Your task to perform on an android device: open app "WhatsApp Messenger" (install if not already installed) Image 0: 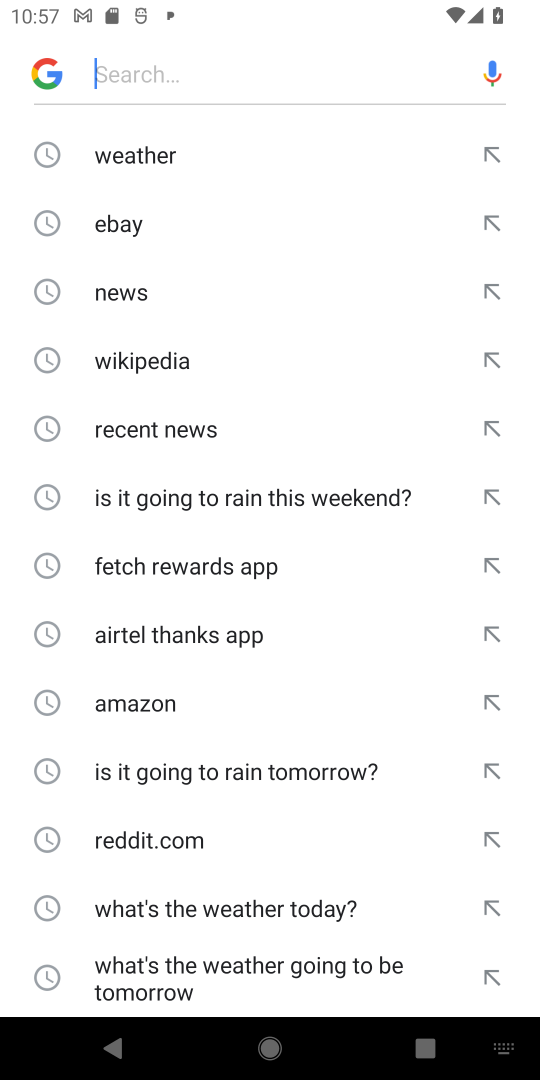
Step 0: press home button
Your task to perform on an android device: open app "WhatsApp Messenger" (install if not already installed) Image 1: 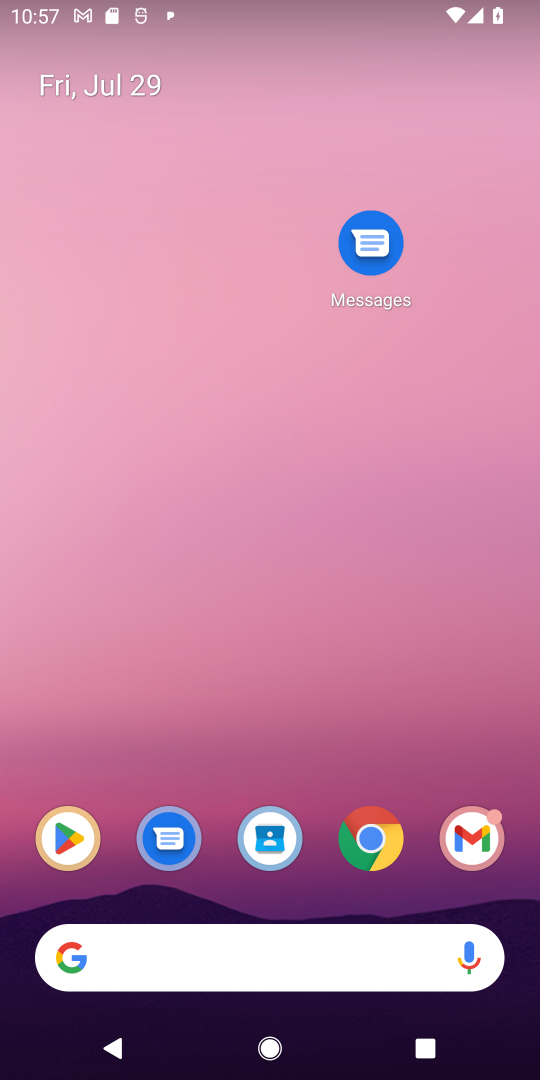
Step 1: click (88, 846)
Your task to perform on an android device: open app "WhatsApp Messenger" (install if not already installed) Image 2: 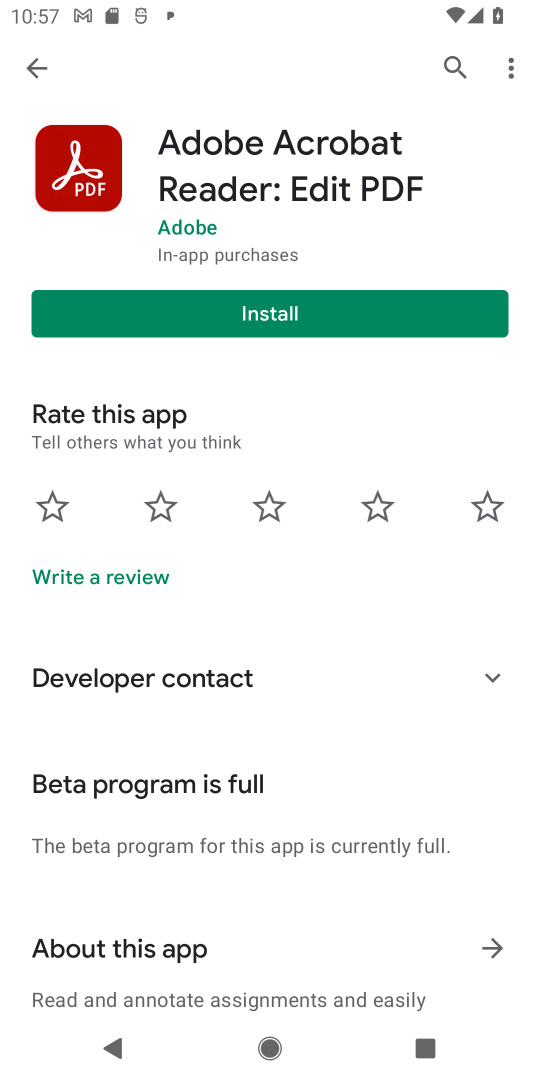
Step 2: click (25, 63)
Your task to perform on an android device: open app "WhatsApp Messenger" (install if not already installed) Image 3: 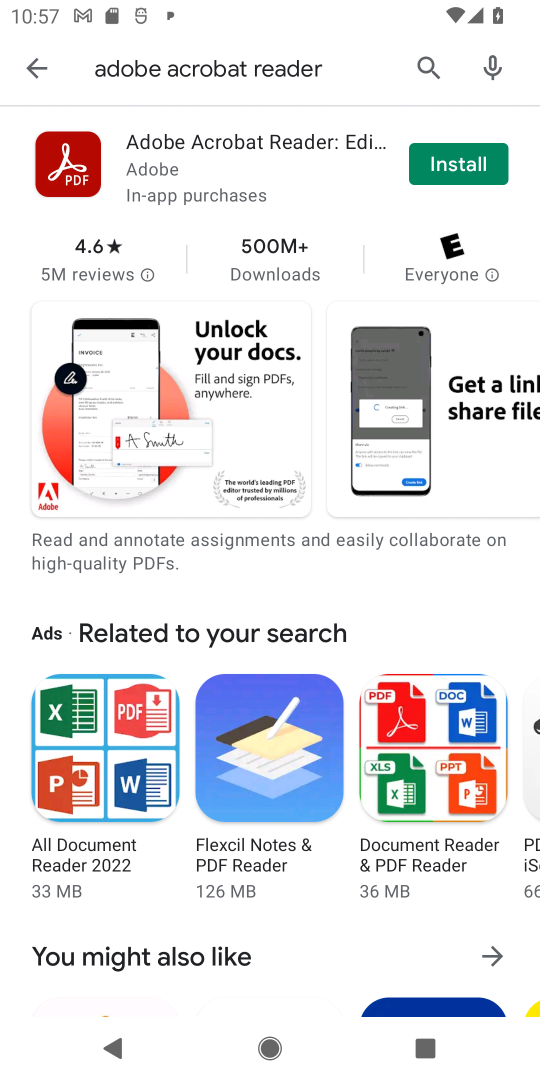
Step 3: click (164, 66)
Your task to perform on an android device: open app "WhatsApp Messenger" (install if not already installed) Image 4: 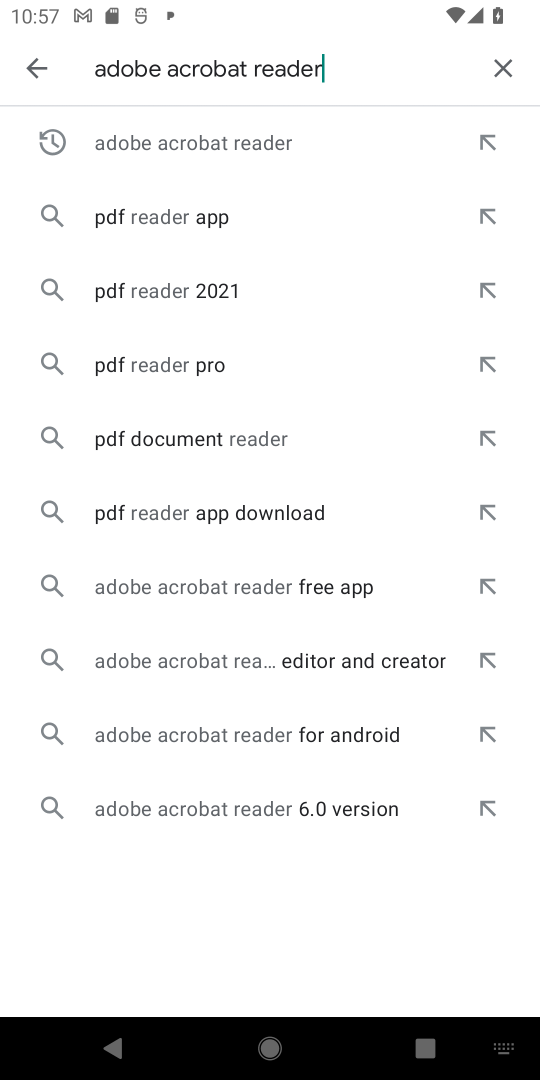
Step 4: click (501, 61)
Your task to perform on an android device: open app "WhatsApp Messenger" (install if not already installed) Image 5: 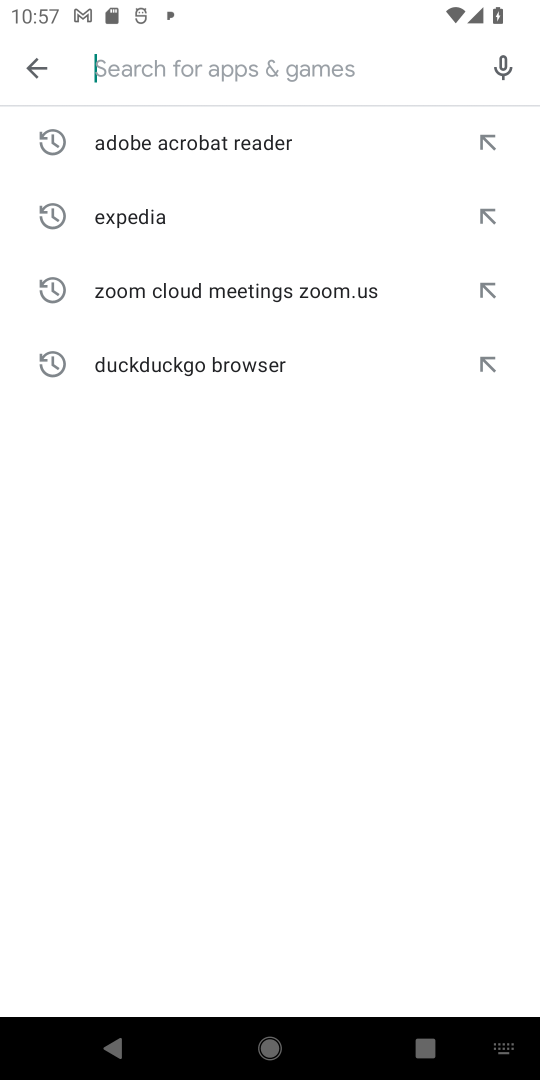
Step 5: type "whatsapp messenger"
Your task to perform on an android device: open app "WhatsApp Messenger" (install if not already installed) Image 6: 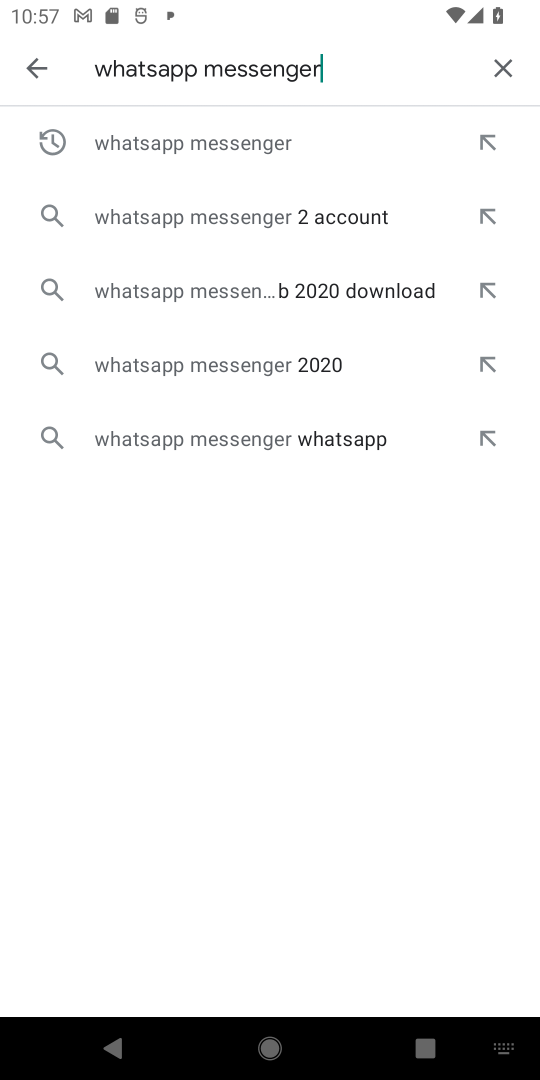
Step 6: click (228, 154)
Your task to perform on an android device: open app "WhatsApp Messenger" (install if not already installed) Image 7: 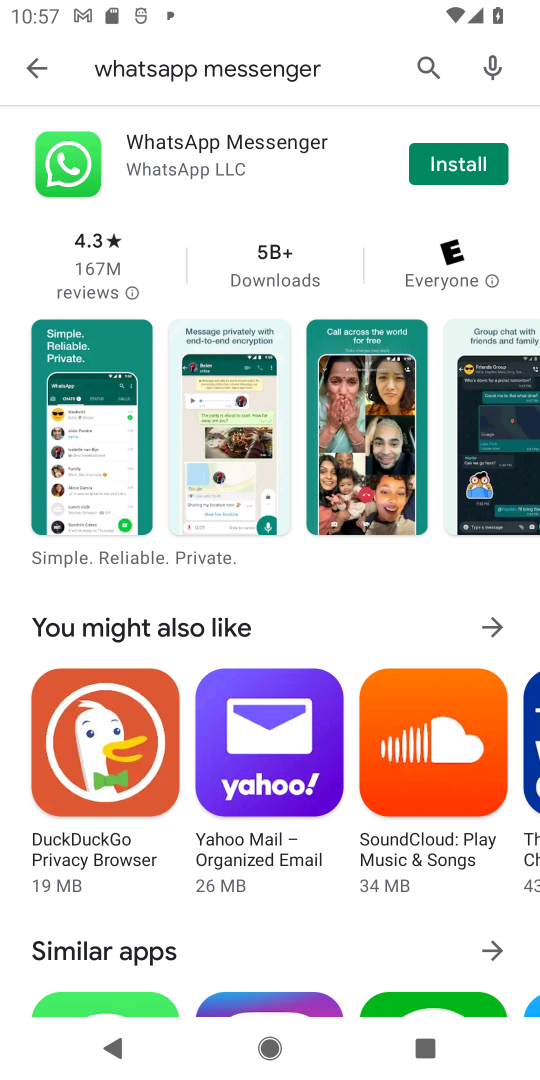
Step 7: click (462, 171)
Your task to perform on an android device: open app "WhatsApp Messenger" (install if not already installed) Image 8: 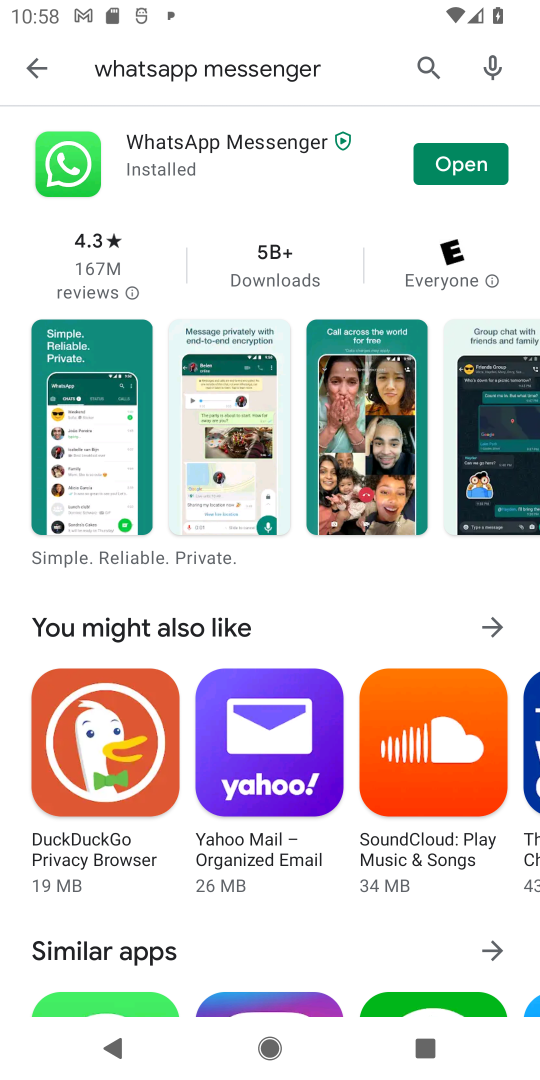
Step 8: click (443, 152)
Your task to perform on an android device: open app "WhatsApp Messenger" (install if not already installed) Image 9: 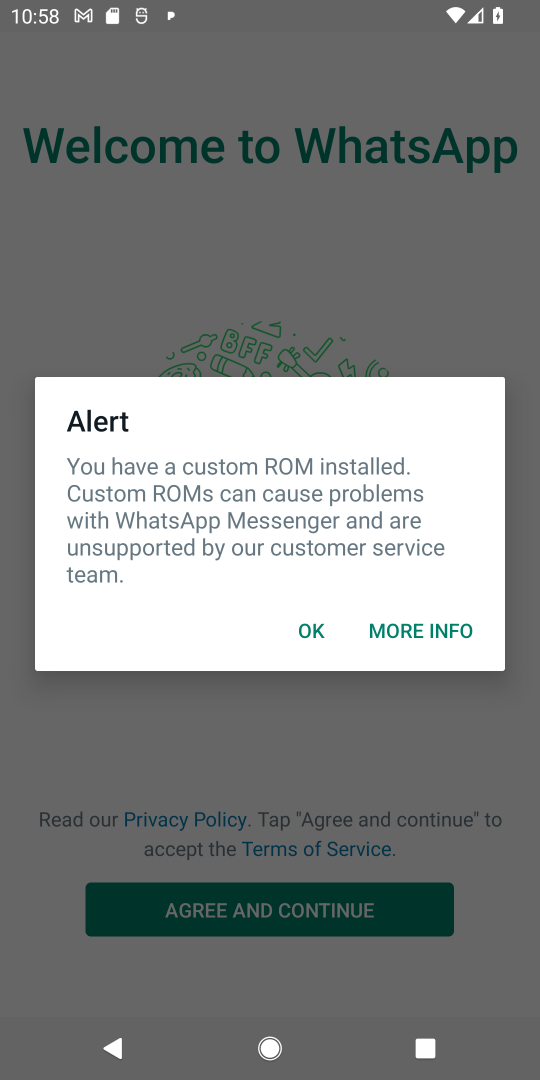
Step 9: click (326, 629)
Your task to perform on an android device: open app "WhatsApp Messenger" (install if not already installed) Image 10: 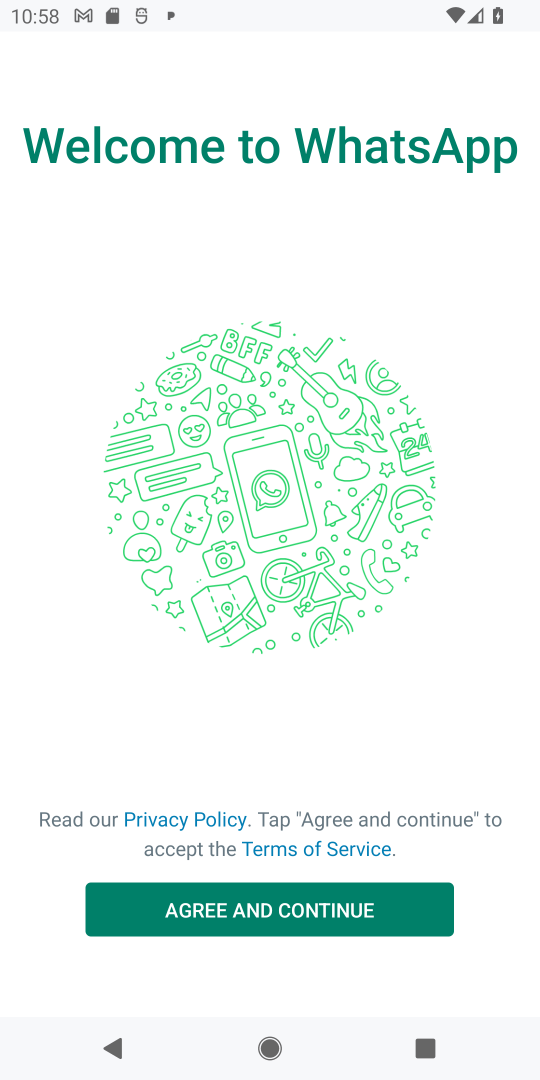
Step 10: click (330, 913)
Your task to perform on an android device: open app "WhatsApp Messenger" (install if not already installed) Image 11: 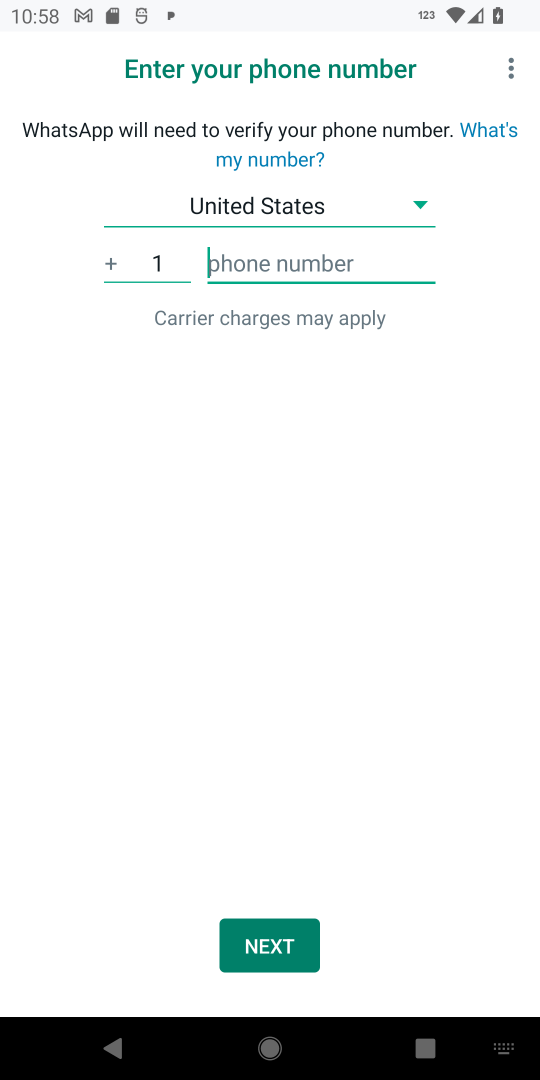
Step 11: task complete